Your task to perform on an android device: check out phone information Image 0: 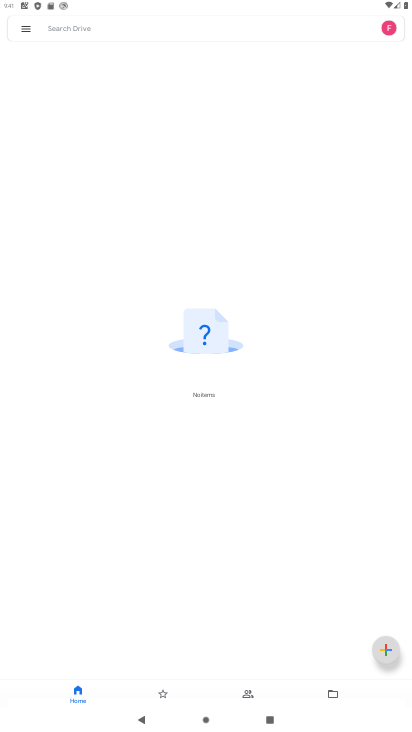
Step 0: press home button
Your task to perform on an android device: check out phone information Image 1: 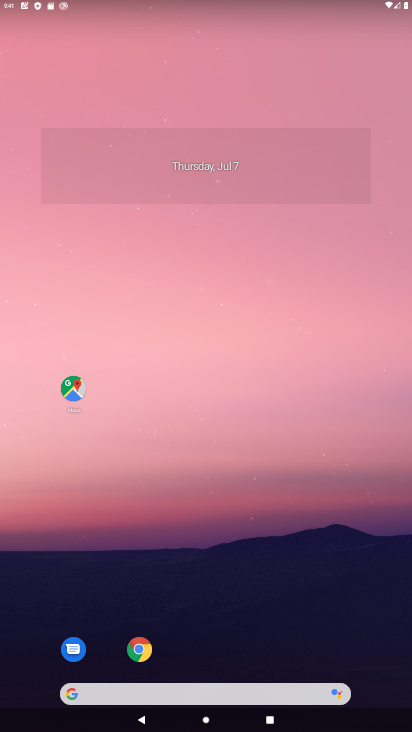
Step 1: drag from (254, 470) to (205, 73)
Your task to perform on an android device: check out phone information Image 2: 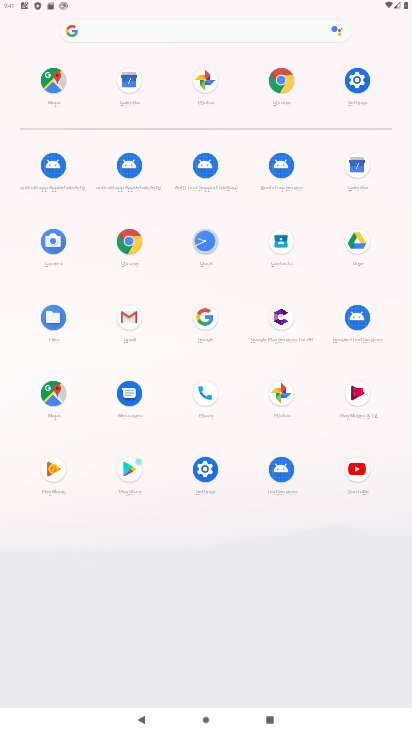
Step 2: click (203, 391)
Your task to perform on an android device: check out phone information Image 3: 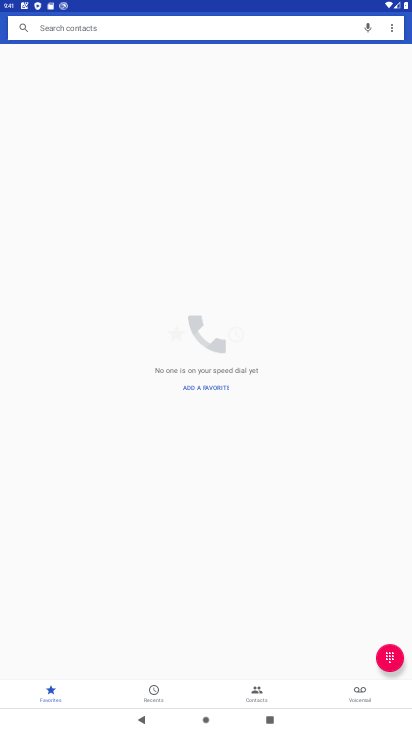
Step 3: click (155, 693)
Your task to perform on an android device: check out phone information Image 4: 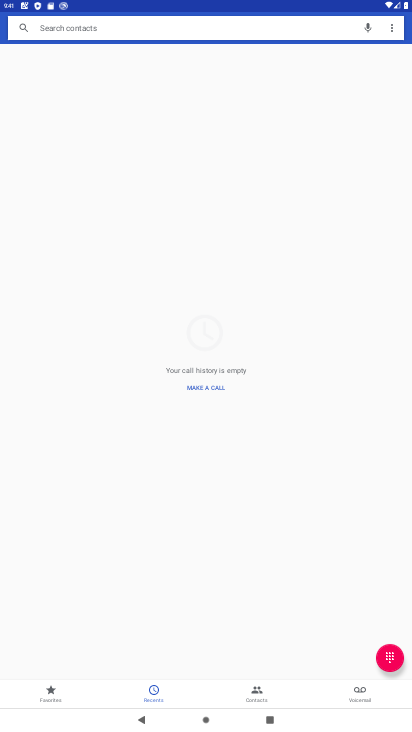
Step 4: task complete